Your task to perform on an android device: What's the weather going to be tomorrow? Image 0: 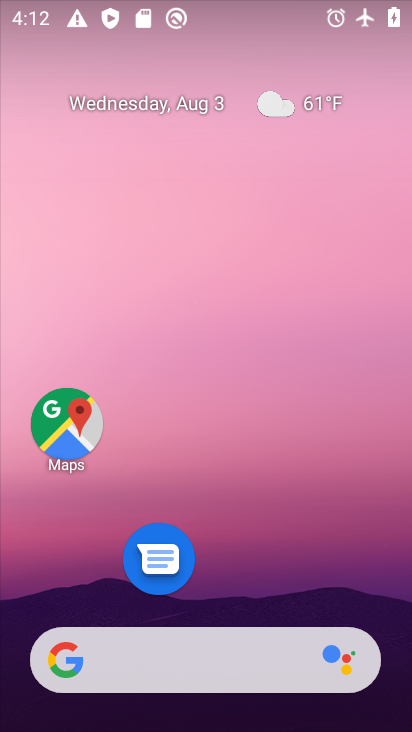
Step 0: drag from (195, 627) to (196, 245)
Your task to perform on an android device: What's the weather going to be tomorrow? Image 1: 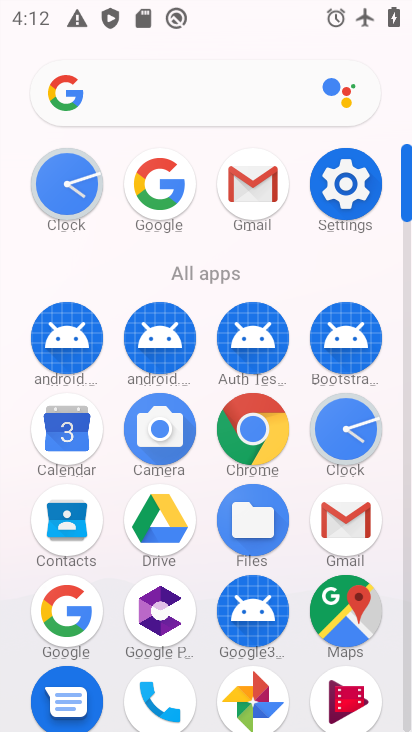
Step 1: drag from (292, 692) to (291, 347)
Your task to perform on an android device: What's the weather going to be tomorrow? Image 2: 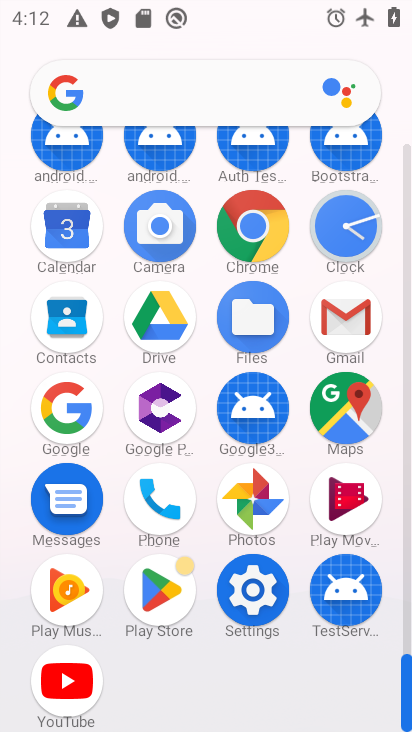
Step 2: click (72, 414)
Your task to perform on an android device: What's the weather going to be tomorrow? Image 3: 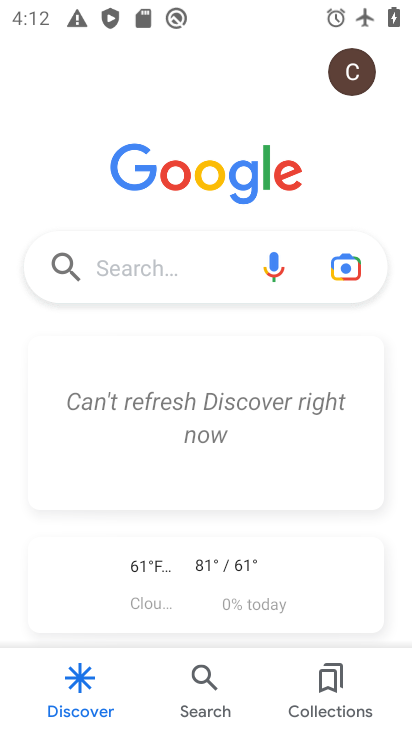
Step 3: click (133, 269)
Your task to perform on an android device: What's the weather going to be tomorrow? Image 4: 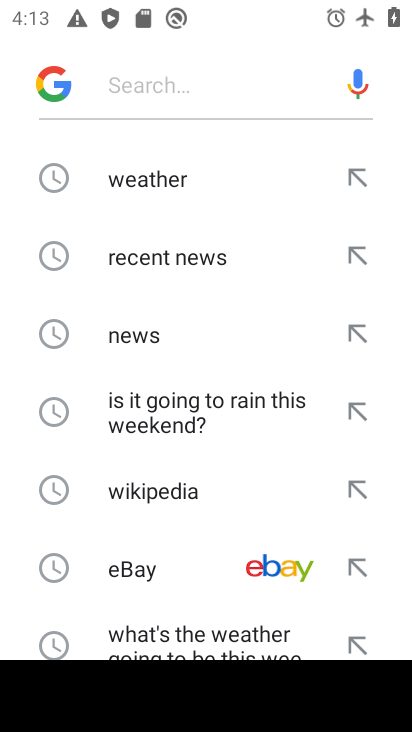
Step 4: click (140, 185)
Your task to perform on an android device: What's the weather going to be tomorrow? Image 5: 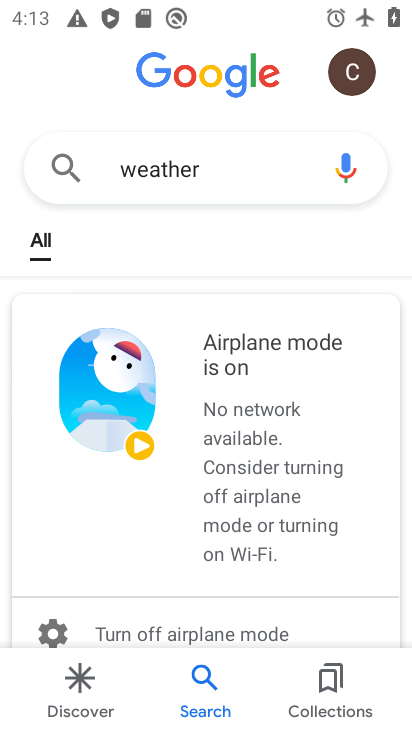
Step 5: task complete